Your task to perform on an android device: search for starred emails in the gmail app Image 0: 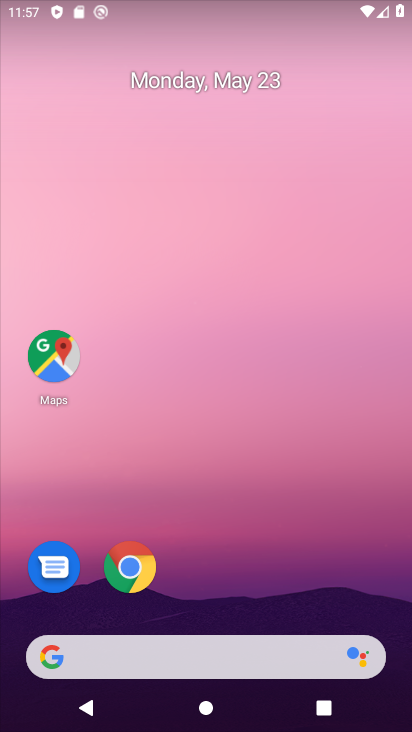
Step 0: drag from (261, 590) to (239, 268)
Your task to perform on an android device: search for starred emails in the gmail app Image 1: 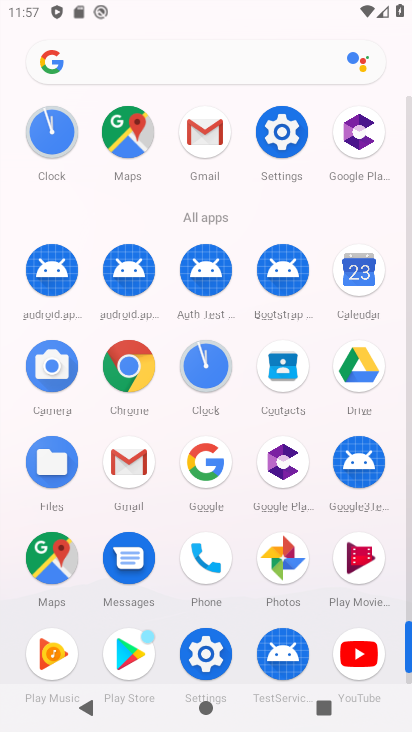
Step 1: click (212, 139)
Your task to perform on an android device: search for starred emails in the gmail app Image 2: 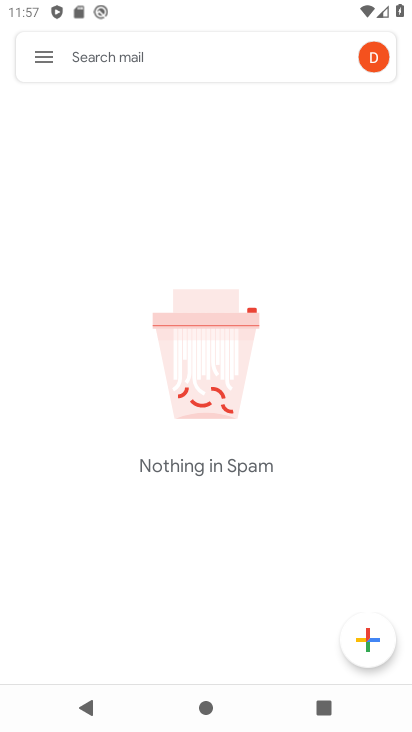
Step 2: click (55, 51)
Your task to perform on an android device: search for starred emails in the gmail app Image 3: 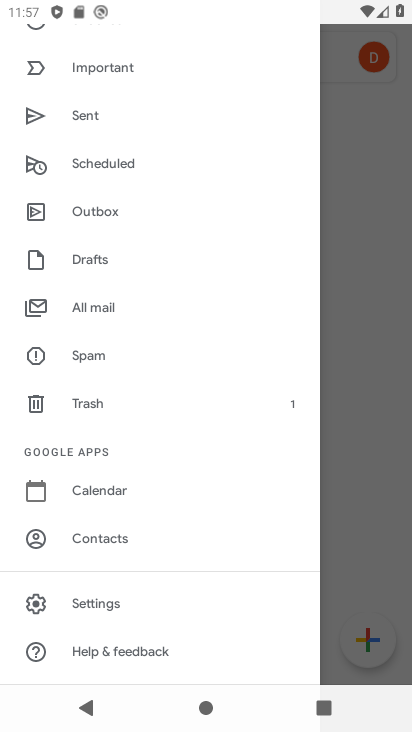
Step 3: drag from (153, 148) to (132, 535)
Your task to perform on an android device: search for starred emails in the gmail app Image 4: 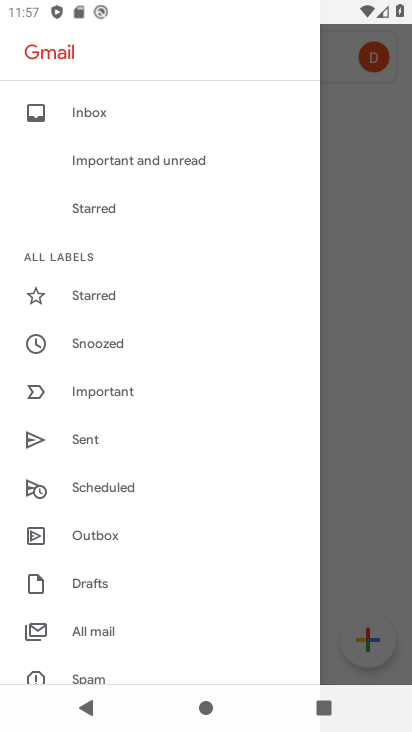
Step 4: click (110, 295)
Your task to perform on an android device: search for starred emails in the gmail app Image 5: 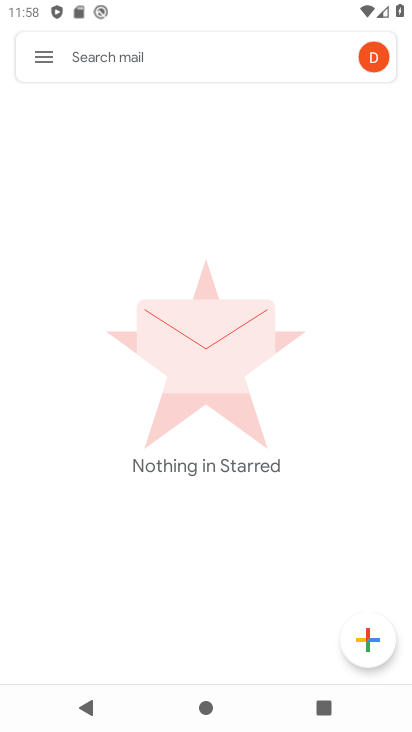
Step 5: task complete